Your task to perform on an android device: turn pop-ups on in chrome Image 0: 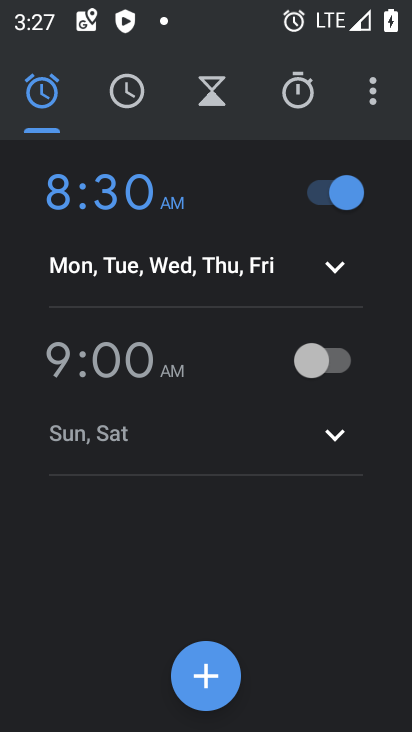
Step 0: task complete